Your task to perform on an android device: all mails in gmail Image 0: 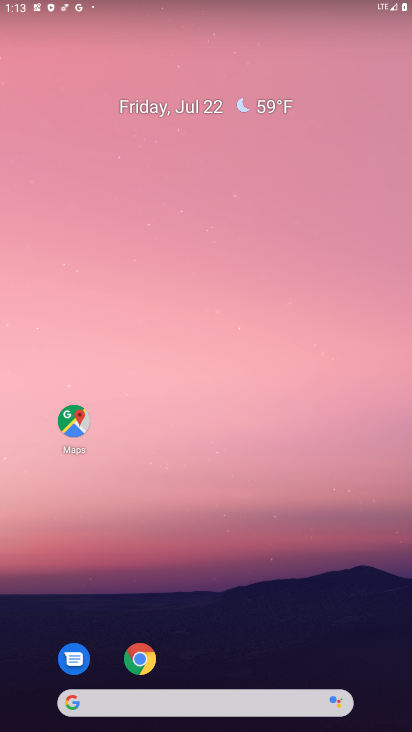
Step 0: click (327, 1)
Your task to perform on an android device: all mails in gmail Image 1: 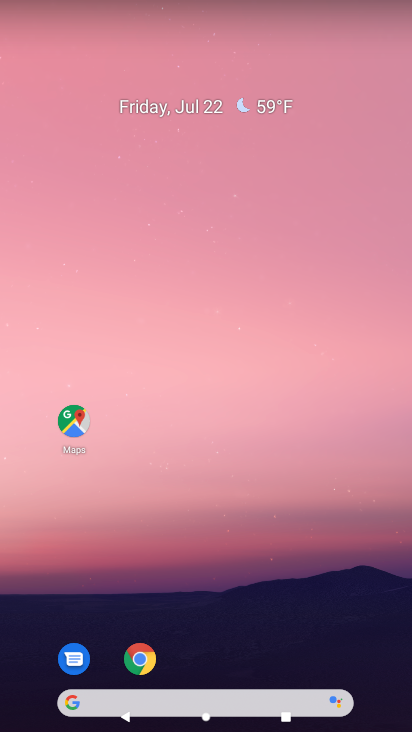
Step 1: drag from (242, 575) to (321, 55)
Your task to perform on an android device: all mails in gmail Image 2: 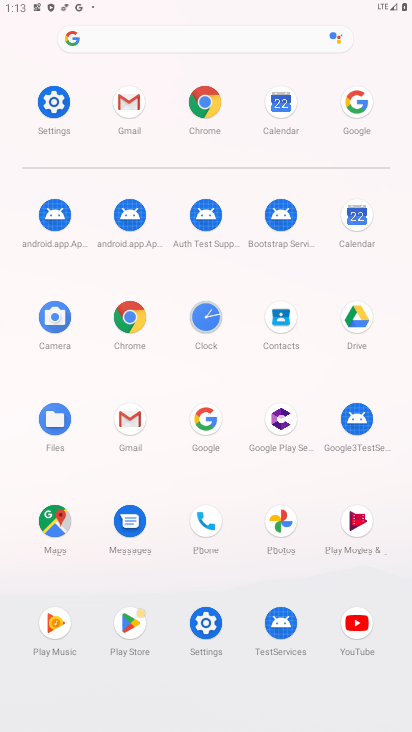
Step 2: click (131, 105)
Your task to perform on an android device: all mails in gmail Image 3: 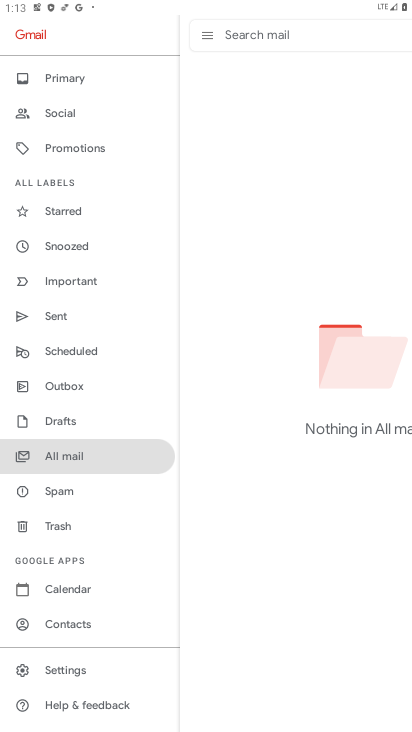
Step 3: click (61, 452)
Your task to perform on an android device: all mails in gmail Image 4: 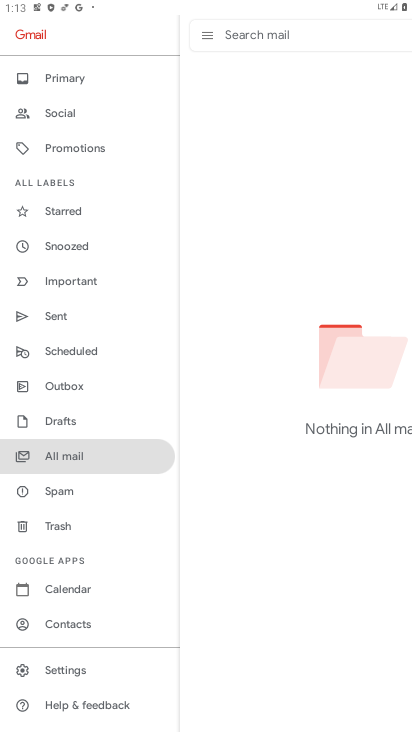
Step 4: task complete